Your task to perform on an android device: stop showing notifications on the lock screen Image 0: 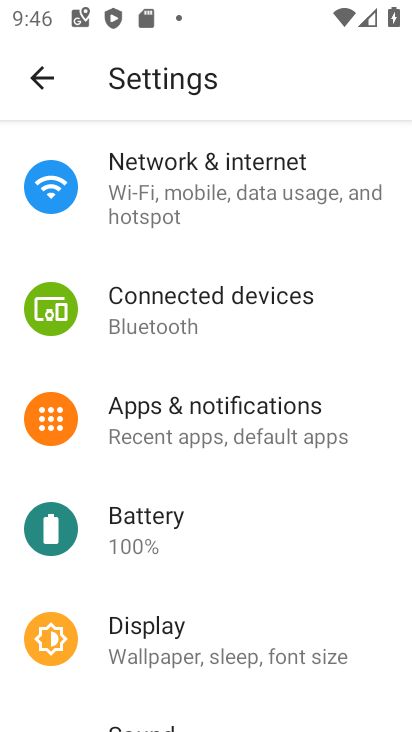
Step 0: press home button
Your task to perform on an android device: stop showing notifications on the lock screen Image 1: 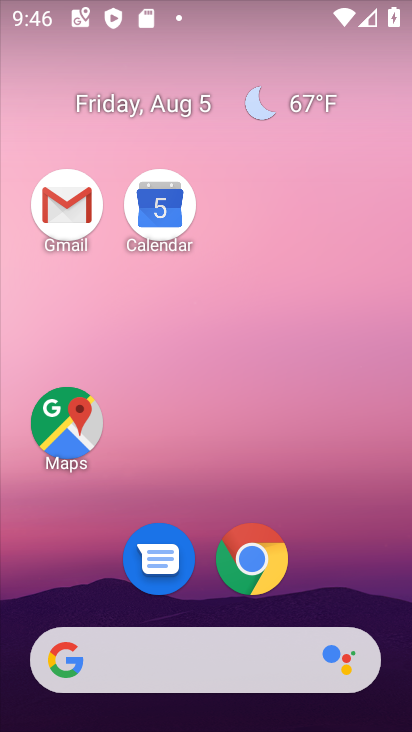
Step 1: drag from (265, 446) to (205, 13)
Your task to perform on an android device: stop showing notifications on the lock screen Image 2: 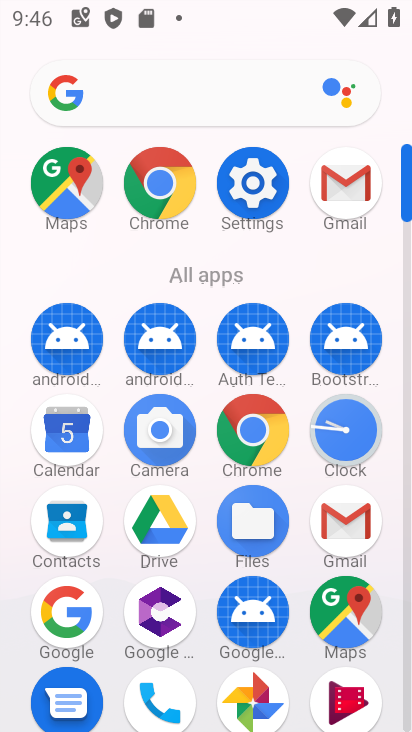
Step 2: drag from (271, 172) to (103, 302)
Your task to perform on an android device: stop showing notifications on the lock screen Image 3: 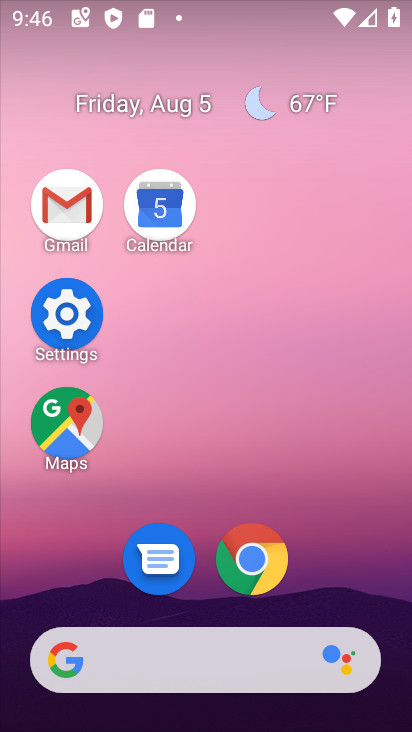
Step 3: click (89, 301)
Your task to perform on an android device: stop showing notifications on the lock screen Image 4: 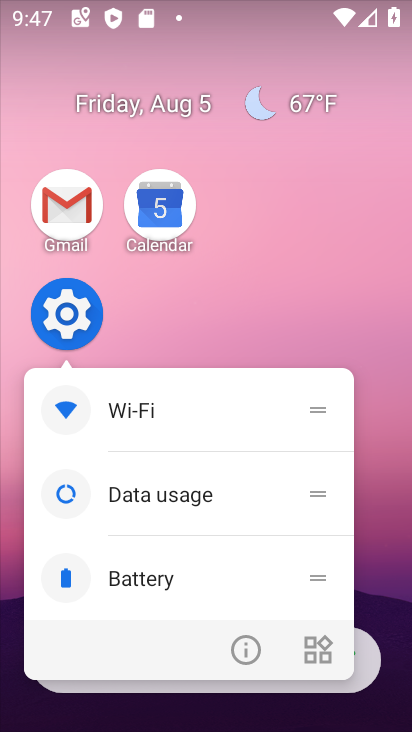
Step 4: click (74, 305)
Your task to perform on an android device: stop showing notifications on the lock screen Image 5: 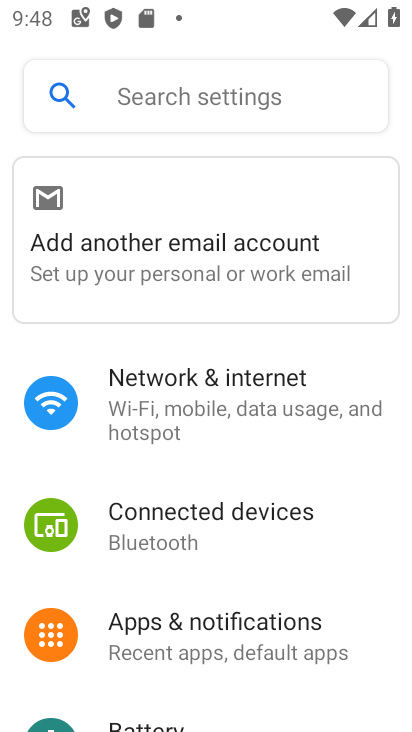
Step 5: click (159, 643)
Your task to perform on an android device: stop showing notifications on the lock screen Image 6: 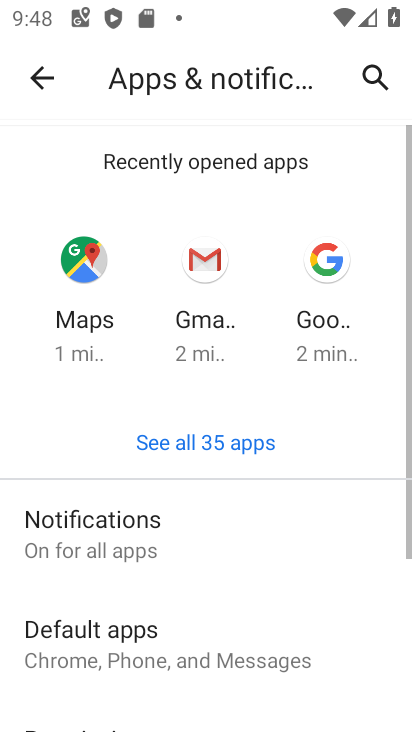
Step 6: click (104, 551)
Your task to perform on an android device: stop showing notifications on the lock screen Image 7: 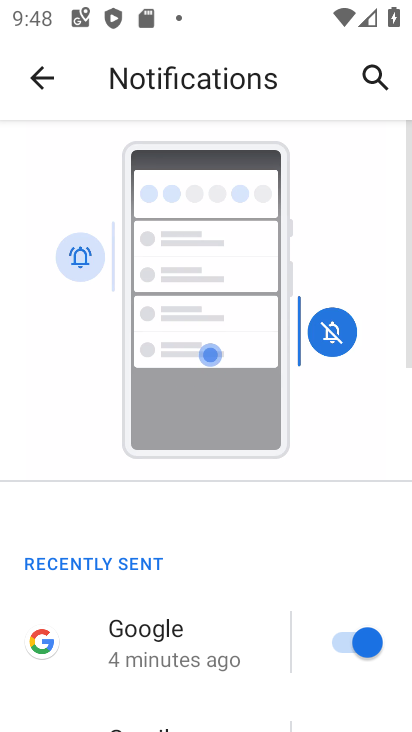
Step 7: drag from (236, 568) to (216, 154)
Your task to perform on an android device: stop showing notifications on the lock screen Image 8: 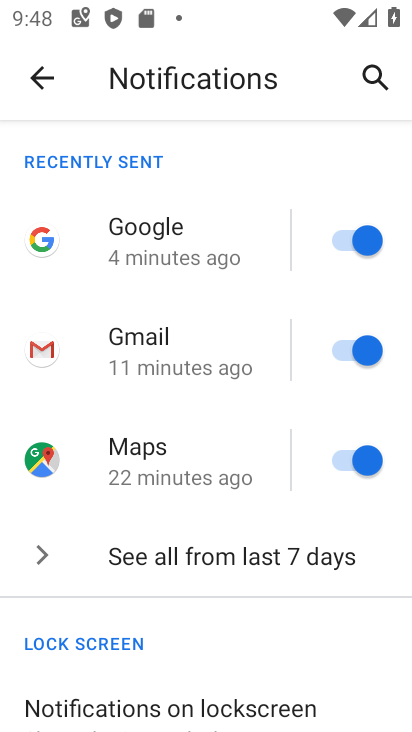
Step 8: drag from (332, 585) to (269, 228)
Your task to perform on an android device: stop showing notifications on the lock screen Image 9: 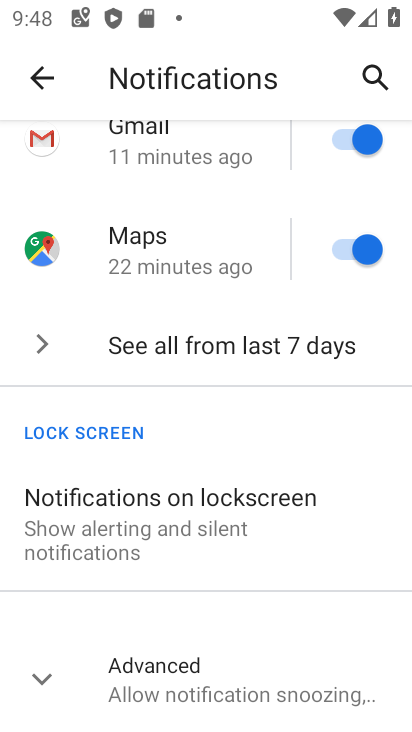
Step 9: click (264, 520)
Your task to perform on an android device: stop showing notifications on the lock screen Image 10: 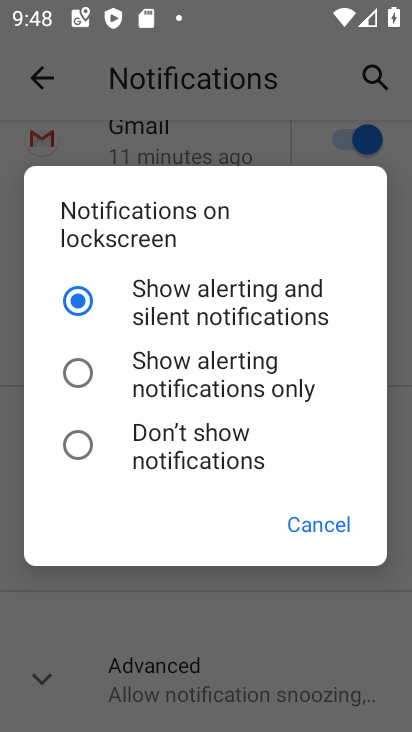
Step 10: click (219, 444)
Your task to perform on an android device: stop showing notifications on the lock screen Image 11: 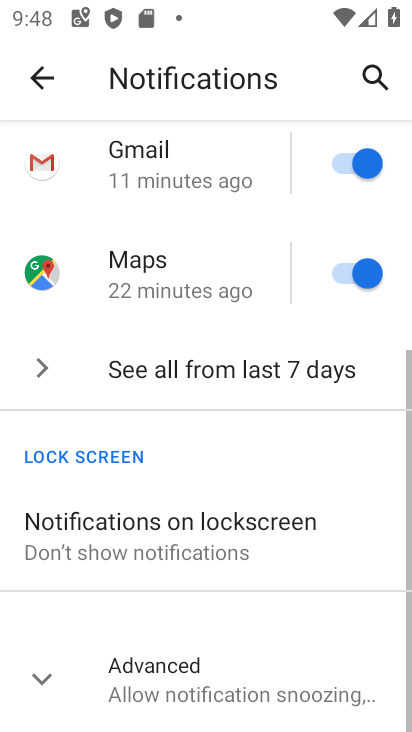
Step 11: task complete